Your task to perform on an android device: open the mobile data screen to see how much data has been used Image 0: 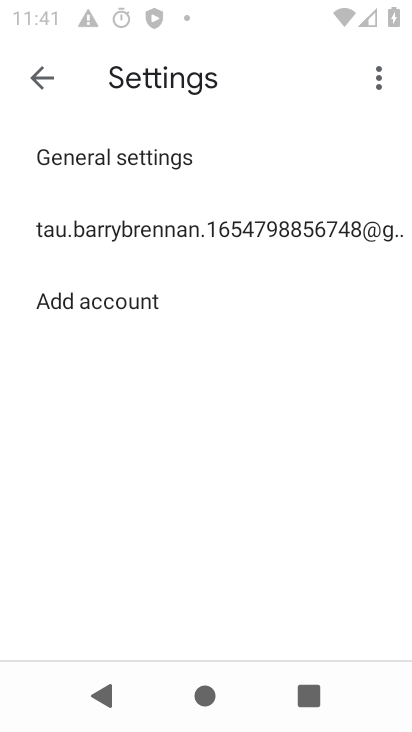
Step 0: press home button
Your task to perform on an android device: open the mobile data screen to see how much data has been used Image 1: 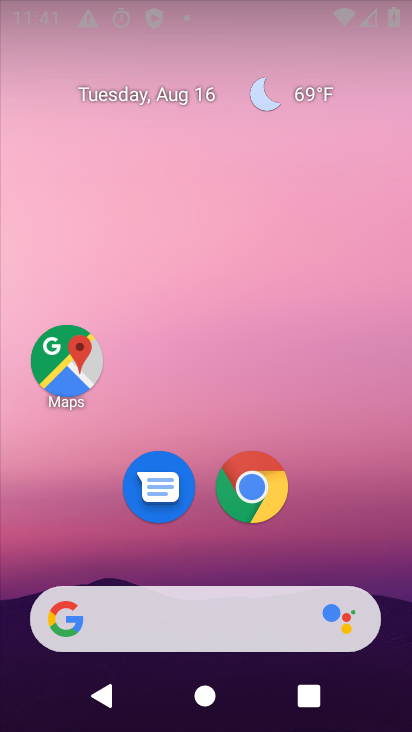
Step 1: drag from (343, 162) to (293, 599)
Your task to perform on an android device: open the mobile data screen to see how much data has been used Image 2: 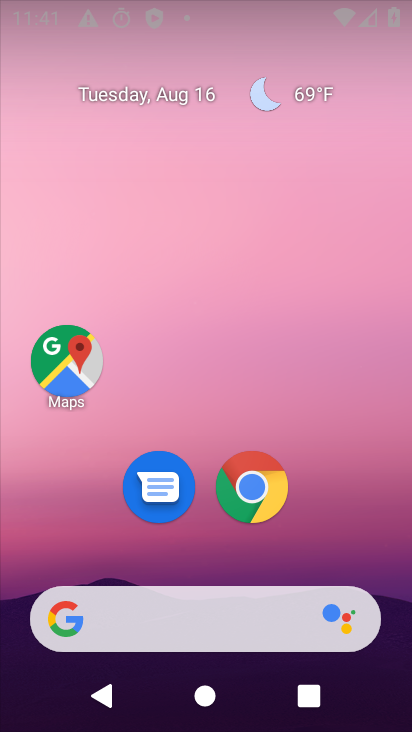
Step 2: drag from (318, 10) to (227, 638)
Your task to perform on an android device: open the mobile data screen to see how much data has been used Image 3: 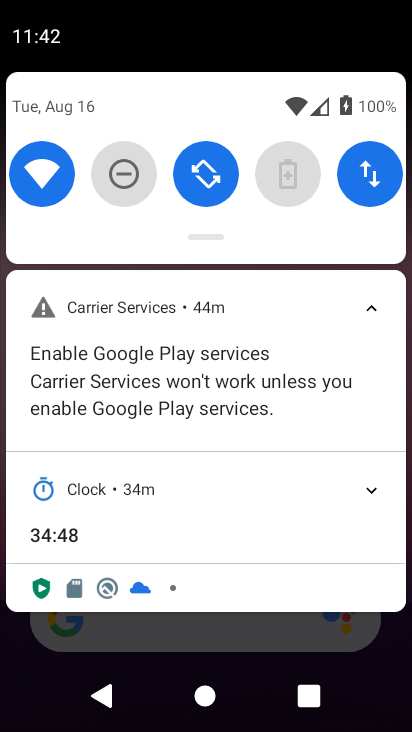
Step 3: click (369, 164)
Your task to perform on an android device: open the mobile data screen to see how much data has been used Image 4: 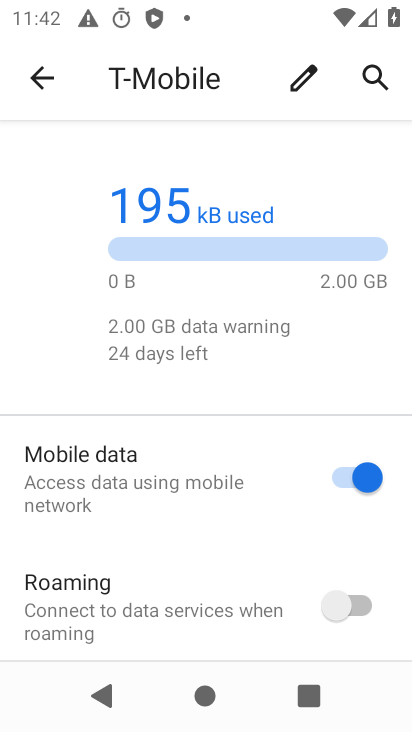
Step 4: task complete